Your task to perform on an android device: check out phone information Image 0: 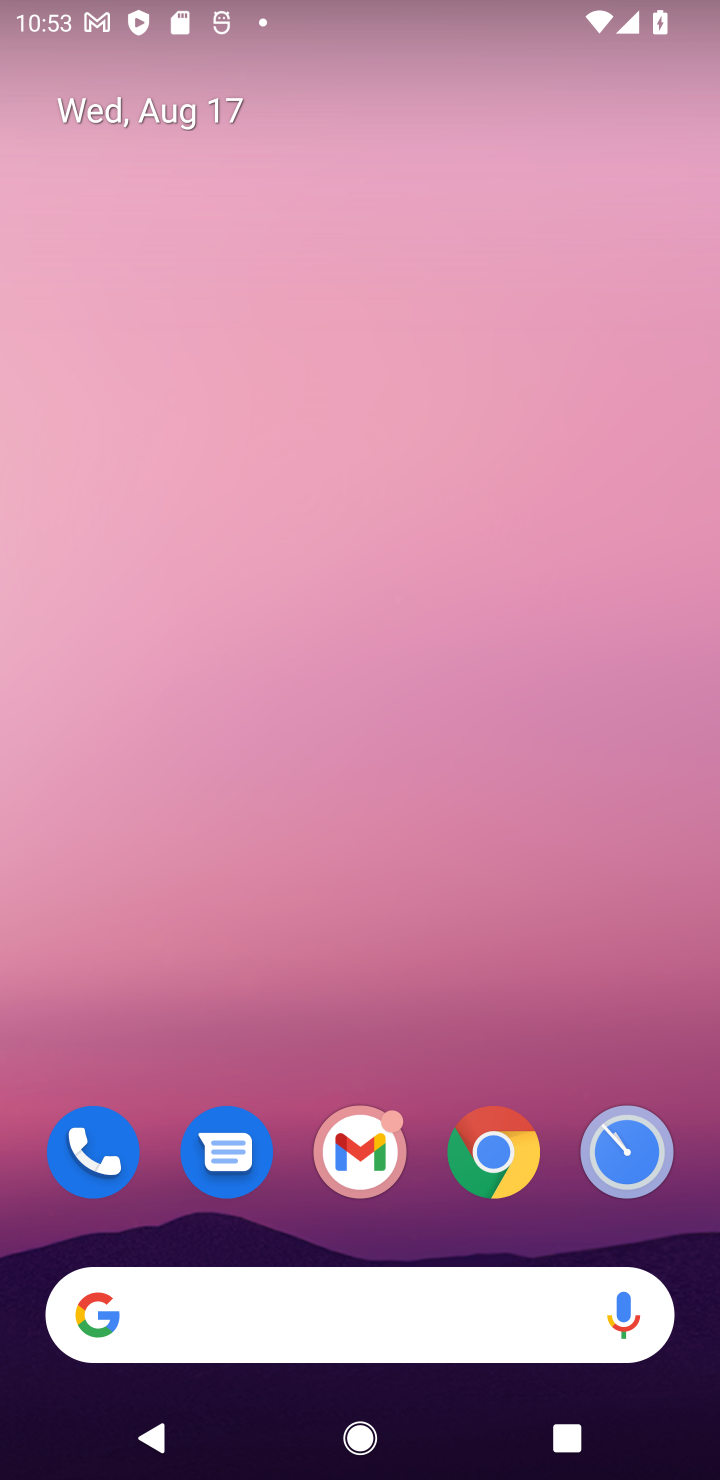
Step 0: drag from (591, 1230) to (322, 60)
Your task to perform on an android device: check out phone information Image 1: 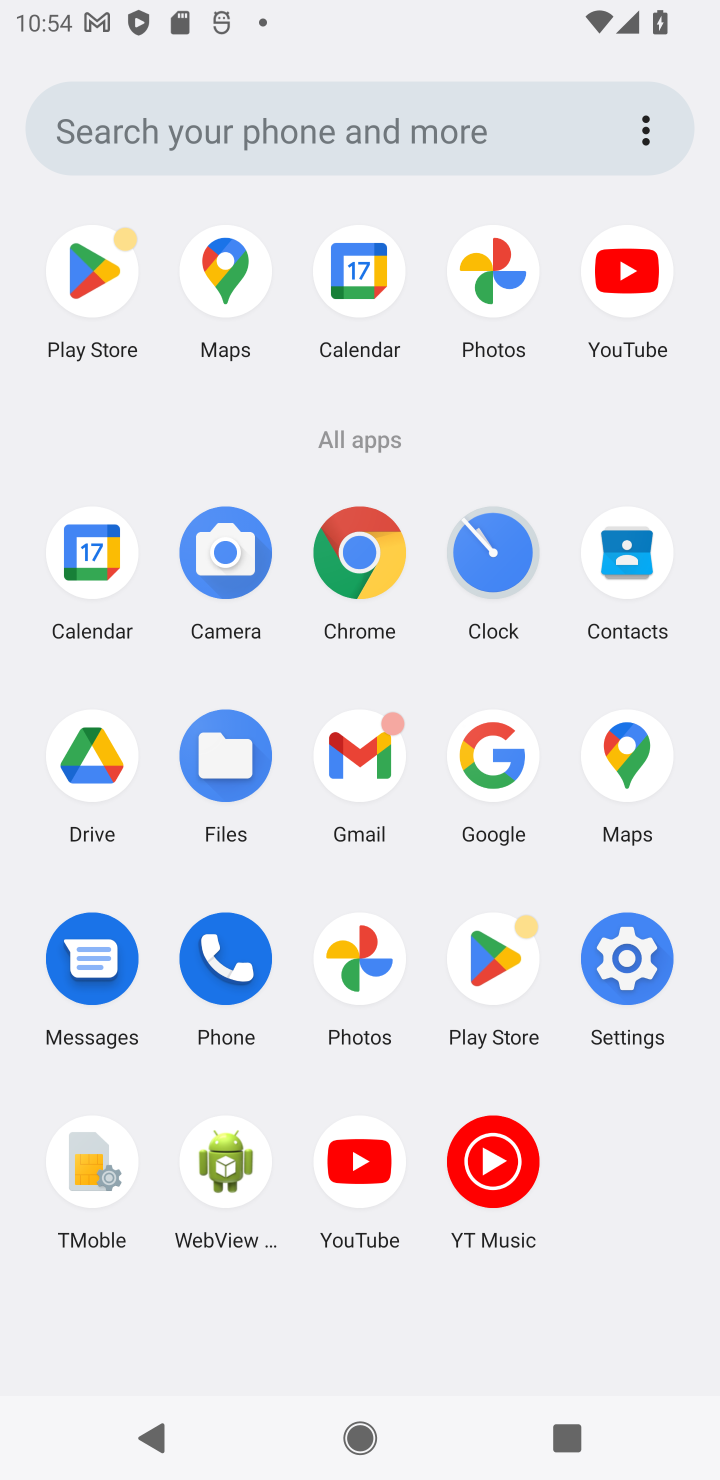
Step 1: click (618, 989)
Your task to perform on an android device: check out phone information Image 2: 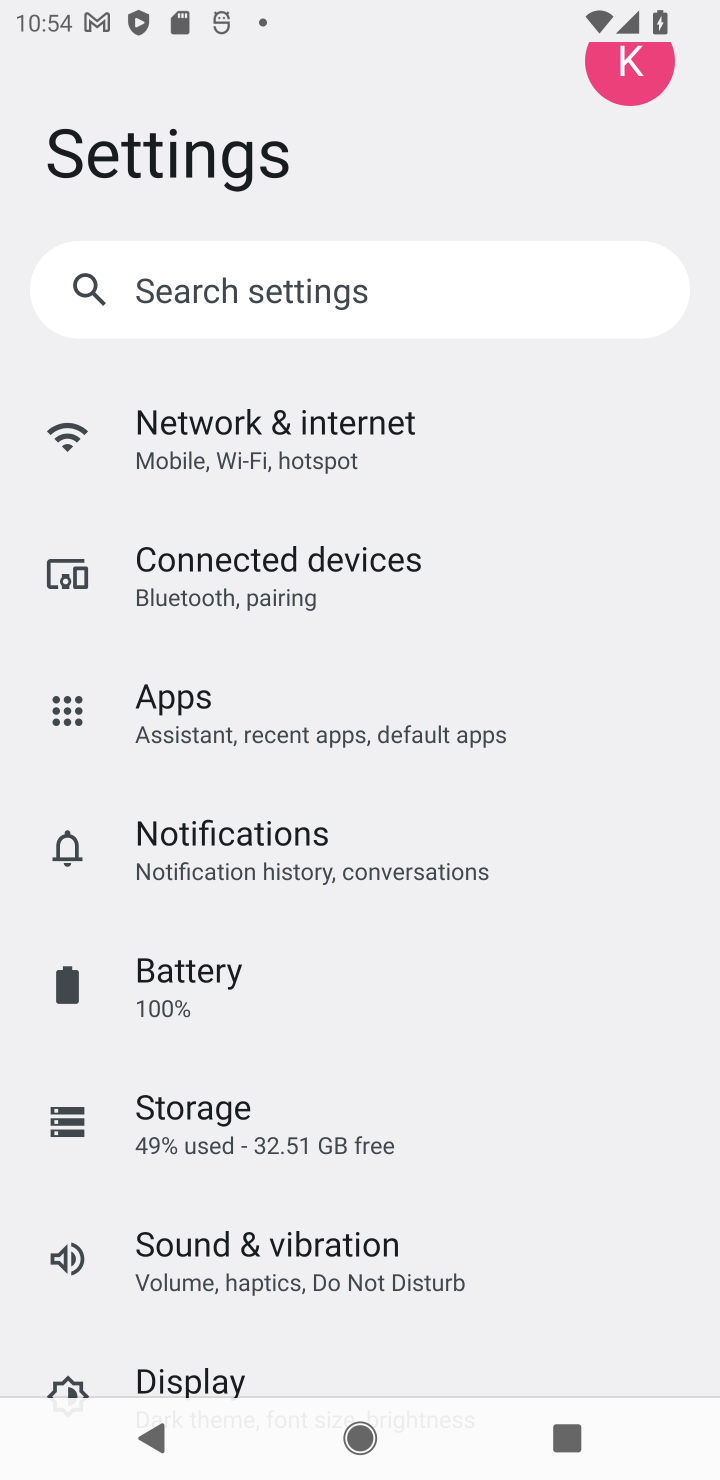
Step 2: task complete